Your task to perform on an android device: Search for vegetarian restaurants on Maps Image 0: 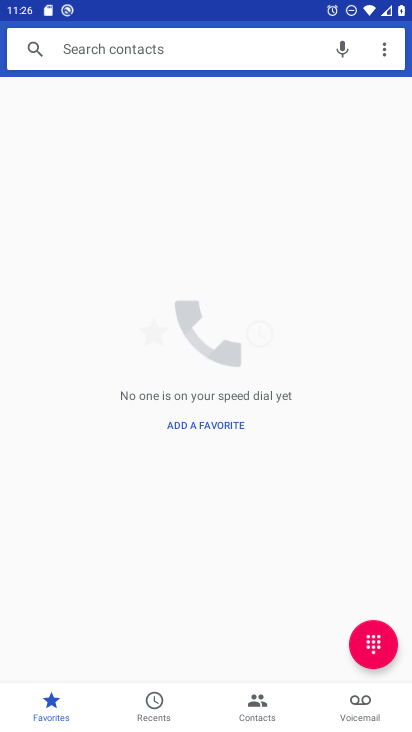
Step 0: press home button
Your task to perform on an android device: Search for vegetarian restaurants on Maps Image 1: 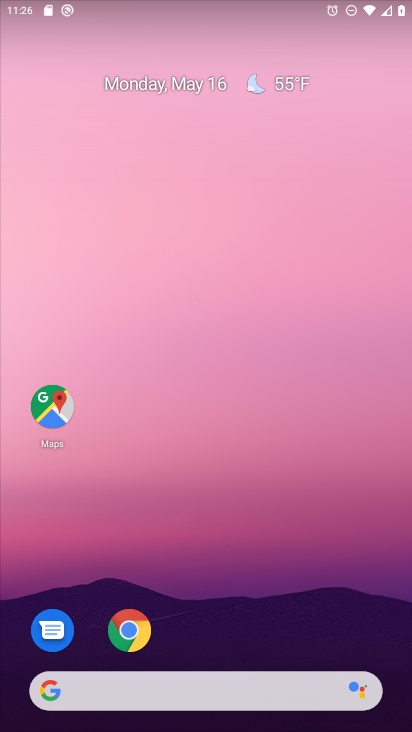
Step 1: click (66, 414)
Your task to perform on an android device: Search for vegetarian restaurants on Maps Image 2: 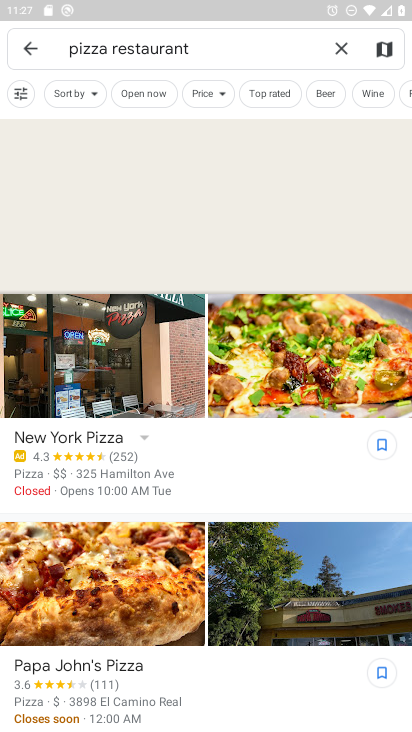
Step 2: click (344, 48)
Your task to perform on an android device: Search for vegetarian restaurants on Maps Image 3: 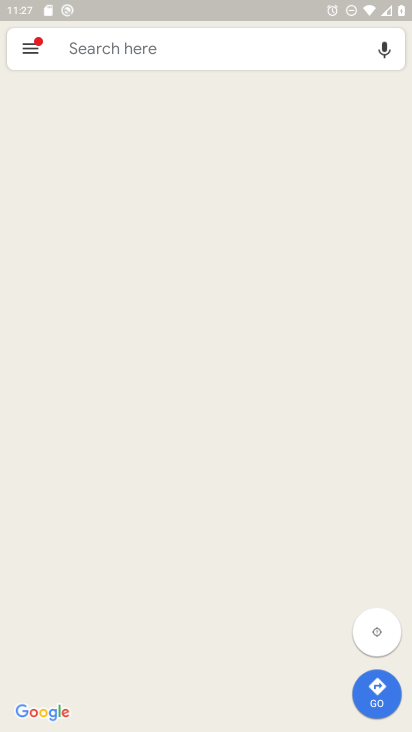
Step 3: click (243, 46)
Your task to perform on an android device: Search for vegetarian restaurants on Maps Image 4: 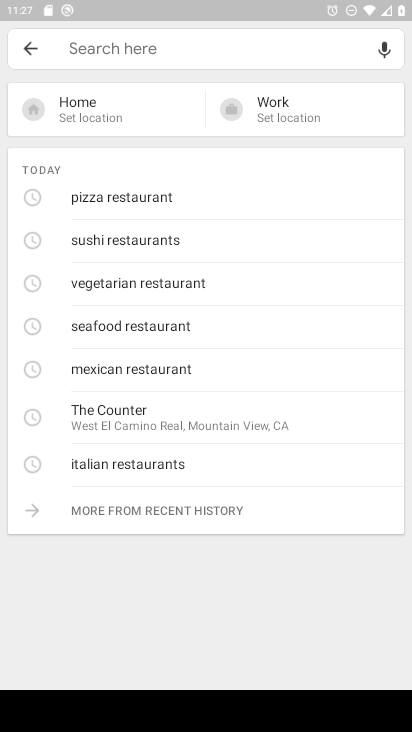
Step 4: click (171, 290)
Your task to perform on an android device: Search for vegetarian restaurants on Maps Image 5: 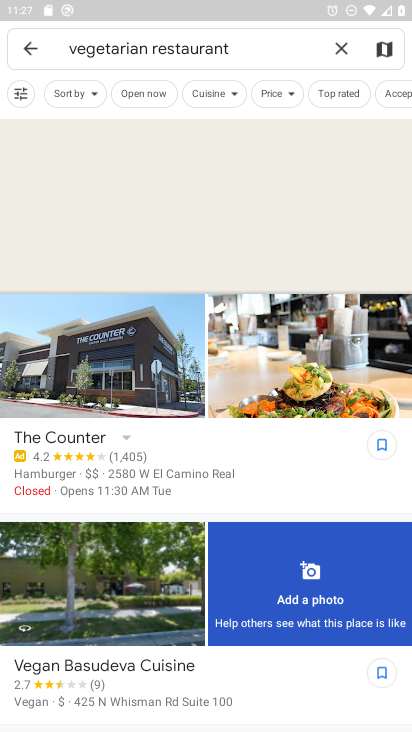
Step 5: task complete